Your task to perform on an android device: toggle javascript in the chrome app Image 0: 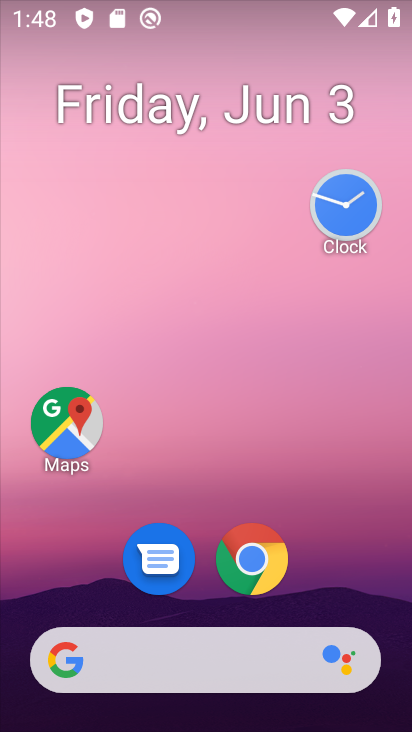
Step 0: click (278, 548)
Your task to perform on an android device: toggle javascript in the chrome app Image 1: 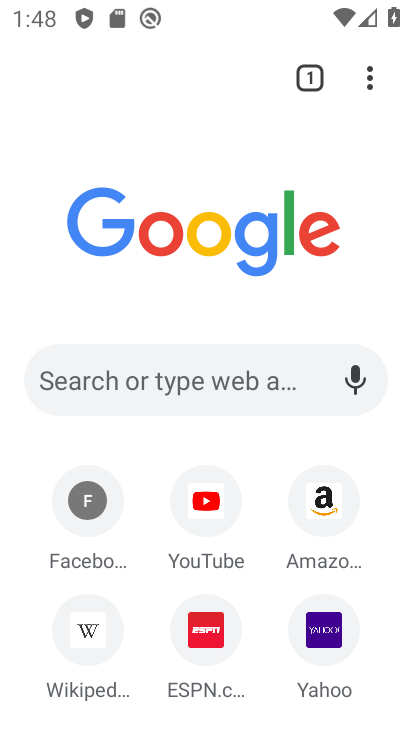
Step 1: click (376, 91)
Your task to perform on an android device: toggle javascript in the chrome app Image 2: 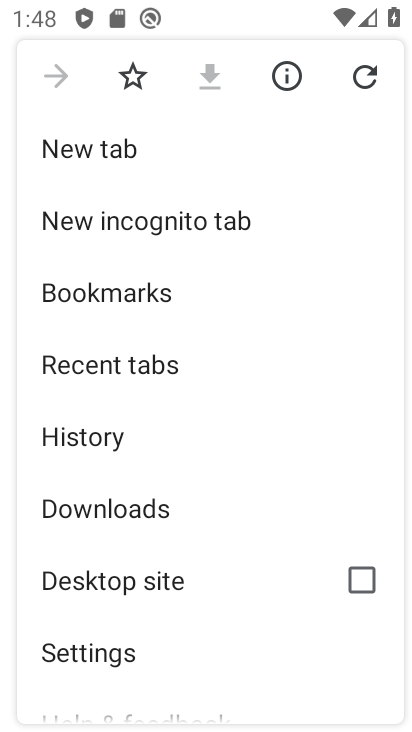
Step 2: click (201, 643)
Your task to perform on an android device: toggle javascript in the chrome app Image 3: 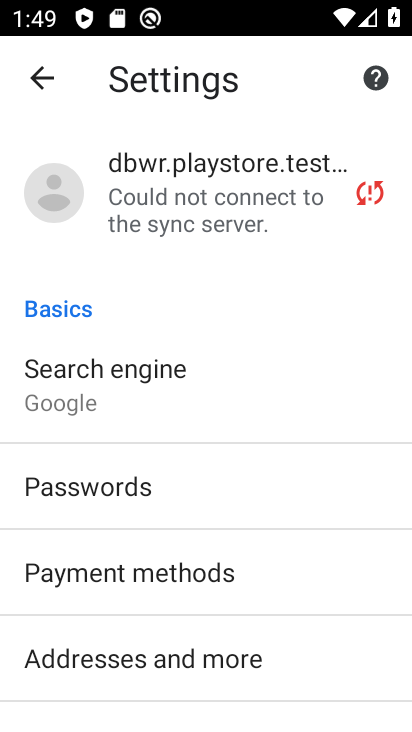
Step 3: drag from (228, 638) to (257, 354)
Your task to perform on an android device: toggle javascript in the chrome app Image 4: 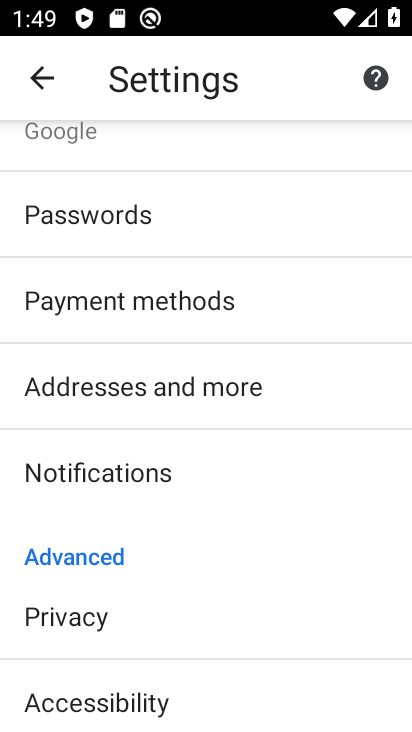
Step 4: drag from (229, 602) to (255, 283)
Your task to perform on an android device: toggle javascript in the chrome app Image 5: 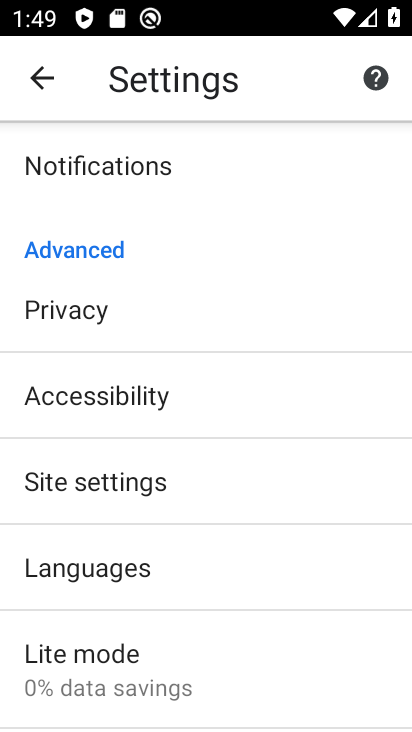
Step 5: click (198, 480)
Your task to perform on an android device: toggle javascript in the chrome app Image 6: 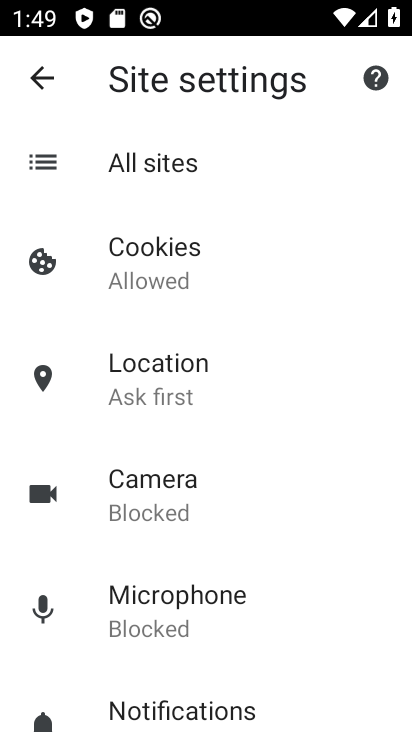
Step 6: drag from (228, 615) to (237, 343)
Your task to perform on an android device: toggle javascript in the chrome app Image 7: 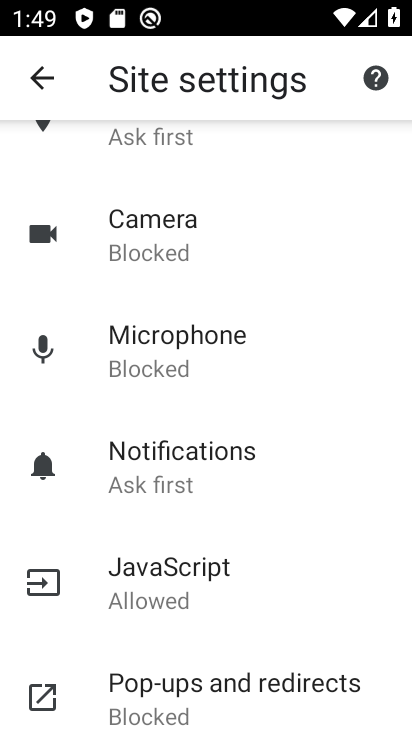
Step 7: click (216, 573)
Your task to perform on an android device: toggle javascript in the chrome app Image 8: 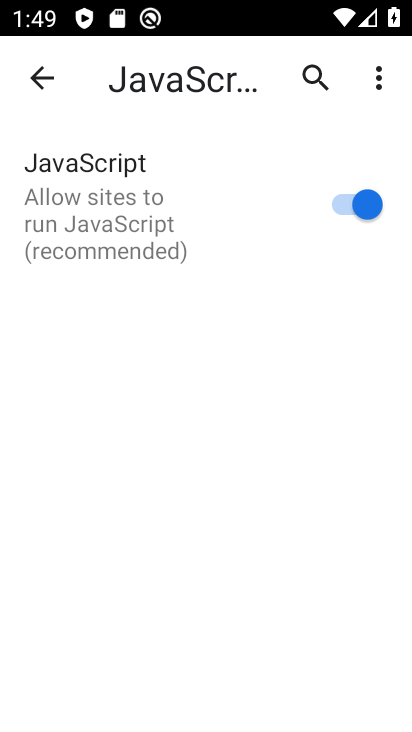
Step 8: click (378, 207)
Your task to perform on an android device: toggle javascript in the chrome app Image 9: 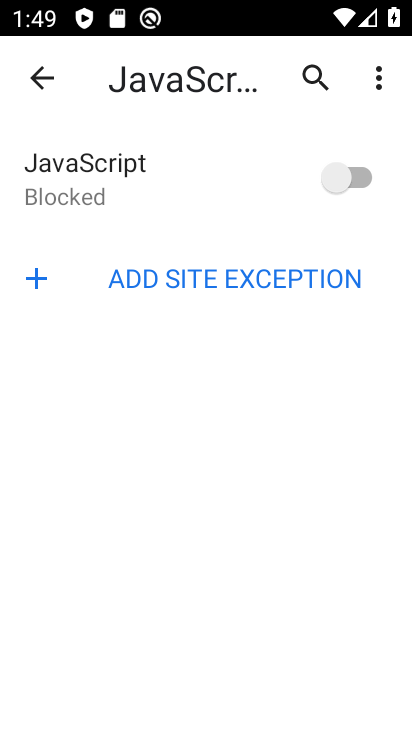
Step 9: task complete